Your task to perform on an android device: change keyboard looks Image 0: 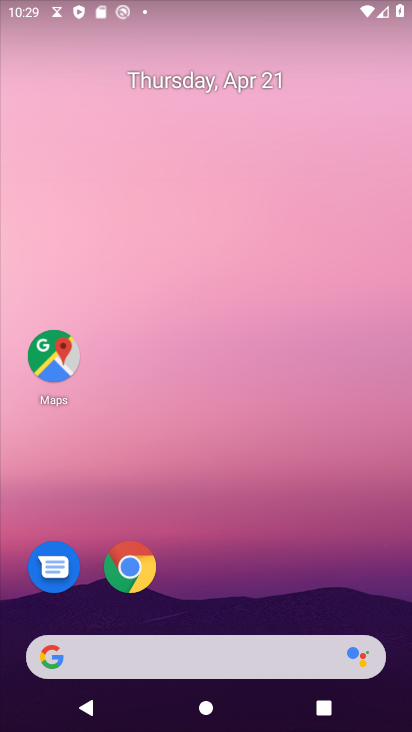
Step 0: drag from (255, 582) to (404, 36)
Your task to perform on an android device: change keyboard looks Image 1: 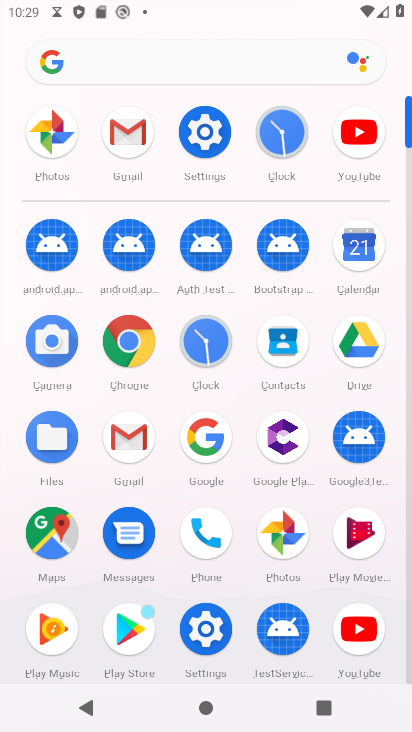
Step 1: click (197, 629)
Your task to perform on an android device: change keyboard looks Image 2: 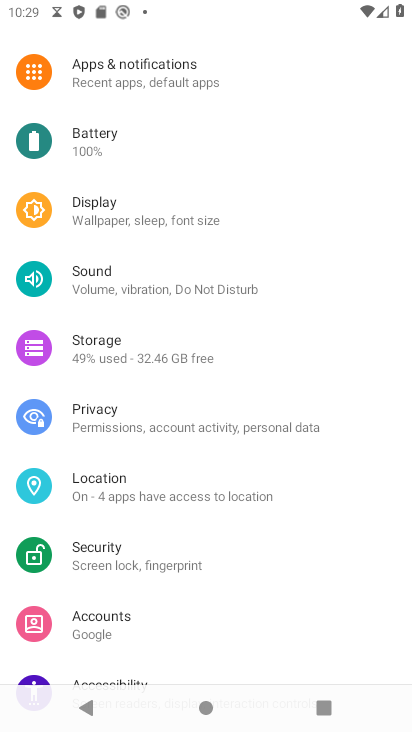
Step 2: drag from (207, 541) to (284, 83)
Your task to perform on an android device: change keyboard looks Image 3: 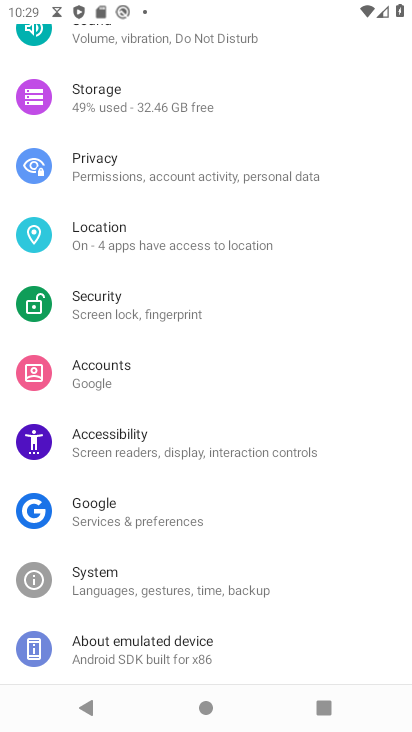
Step 3: click (147, 589)
Your task to perform on an android device: change keyboard looks Image 4: 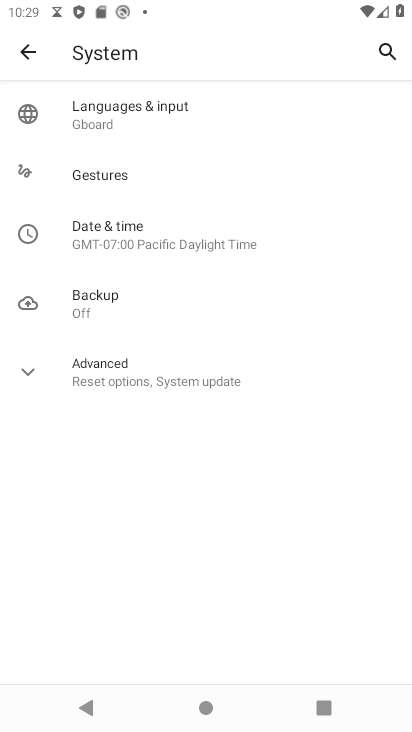
Step 4: click (205, 111)
Your task to perform on an android device: change keyboard looks Image 5: 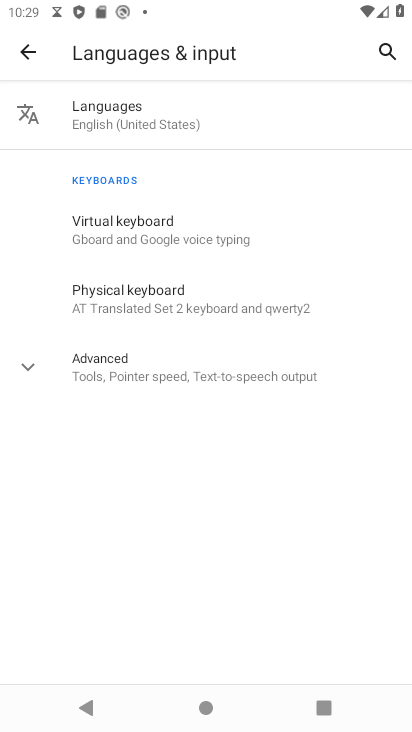
Step 5: click (122, 219)
Your task to perform on an android device: change keyboard looks Image 6: 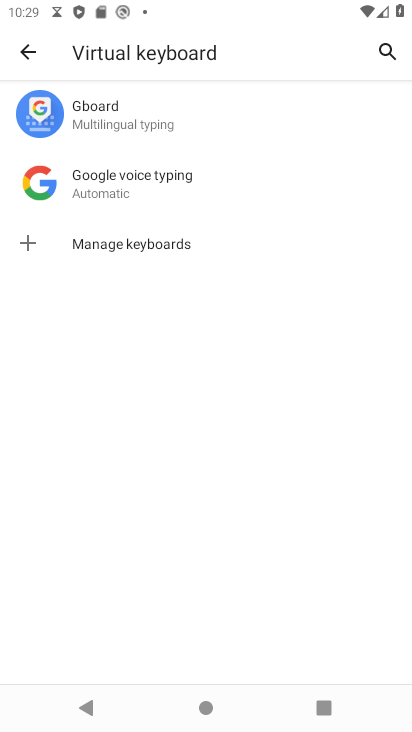
Step 6: click (104, 117)
Your task to perform on an android device: change keyboard looks Image 7: 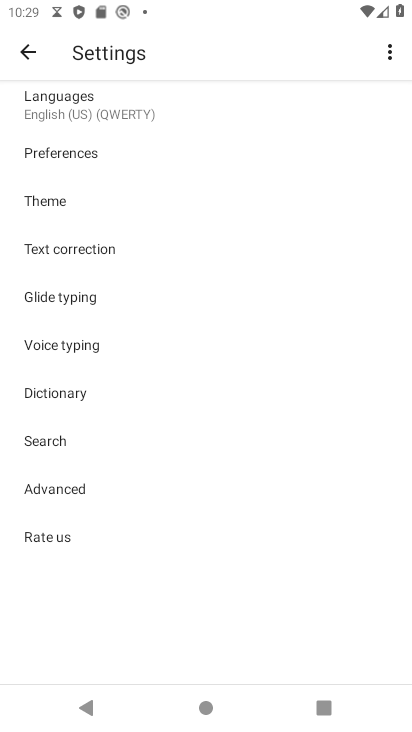
Step 7: click (53, 198)
Your task to perform on an android device: change keyboard looks Image 8: 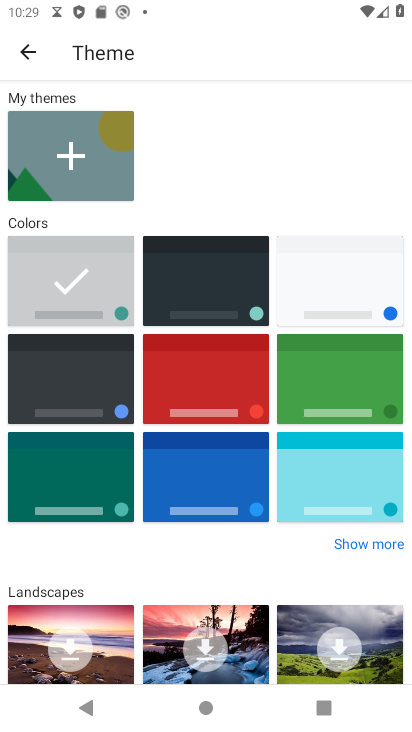
Step 8: click (219, 273)
Your task to perform on an android device: change keyboard looks Image 9: 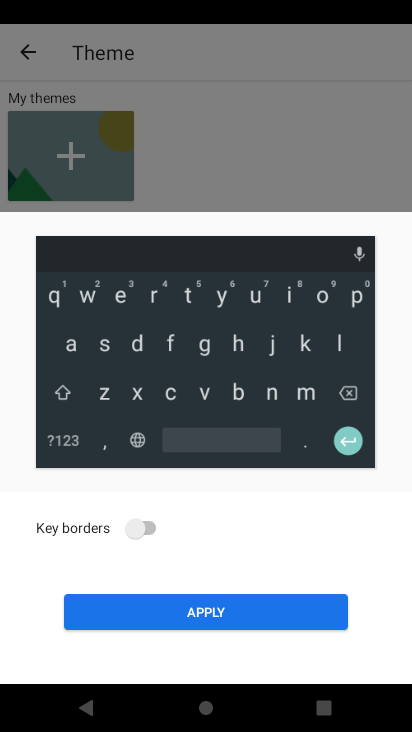
Step 9: click (199, 603)
Your task to perform on an android device: change keyboard looks Image 10: 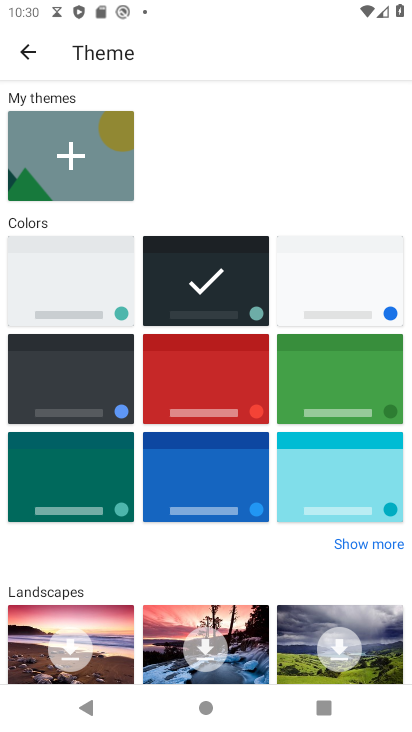
Step 10: task complete